Your task to perform on an android device: Go to Google Image 0: 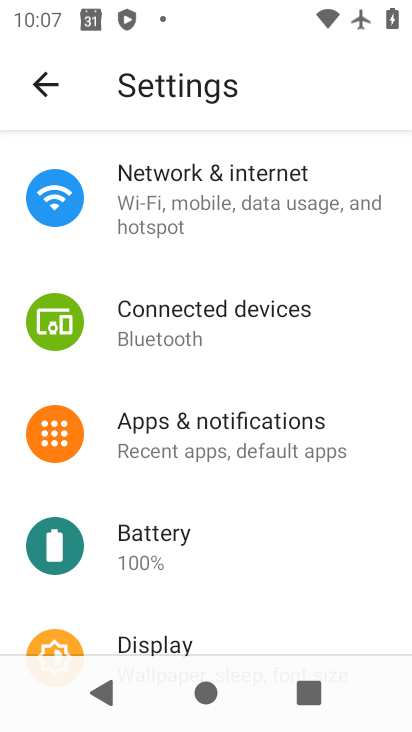
Step 0: press home button
Your task to perform on an android device: Go to Google Image 1: 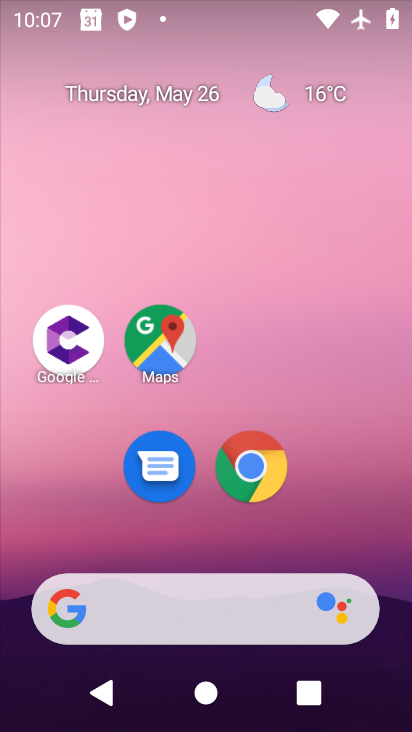
Step 1: click (70, 609)
Your task to perform on an android device: Go to Google Image 2: 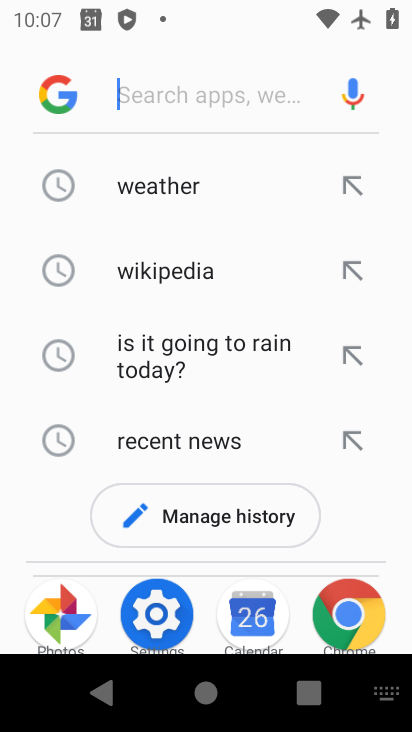
Step 2: click (52, 96)
Your task to perform on an android device: Go to Google Image 3: 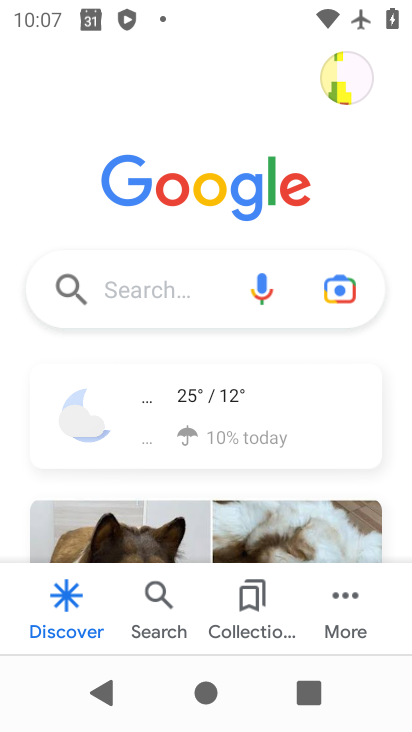
Step 3: task complete